Your task to perform on an android device: Open location settings Image 0: 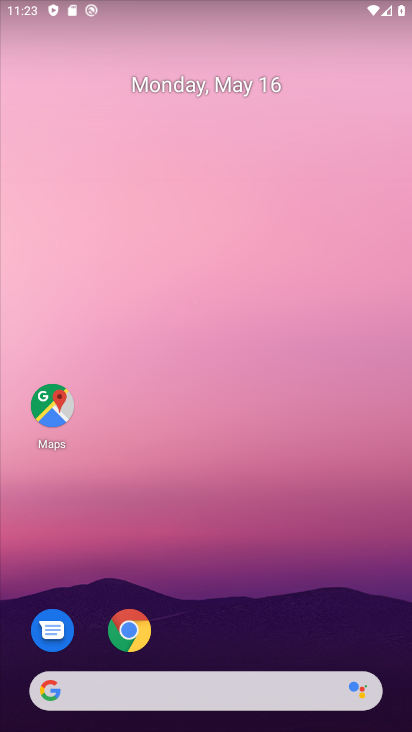
Step 0: drag from (225, 678) to (340, 141)
Your task to perform on an android device: Open location settings Image 1: 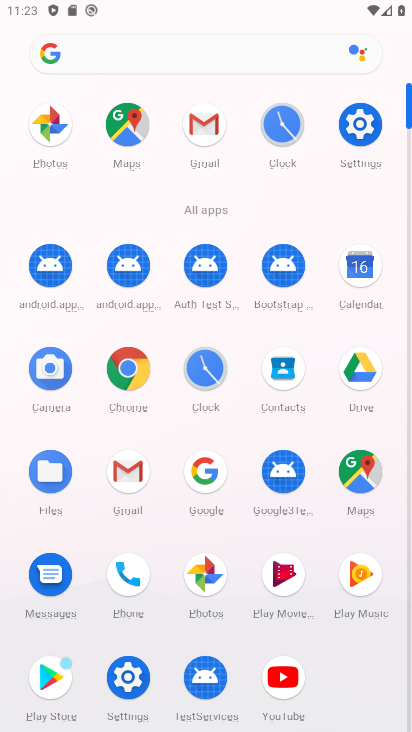
Step 1: click (122, 688)
Your task to perform on an android device: Open location settings Image 2: 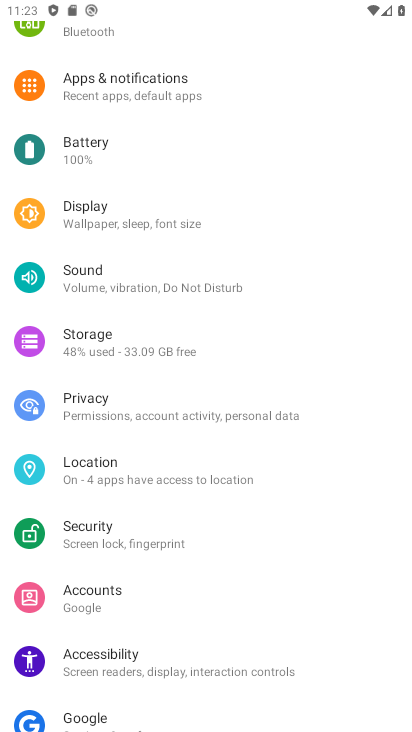
Step 2: click (163, 475)
Your task to perform on an android device: Open location settings Image 3: 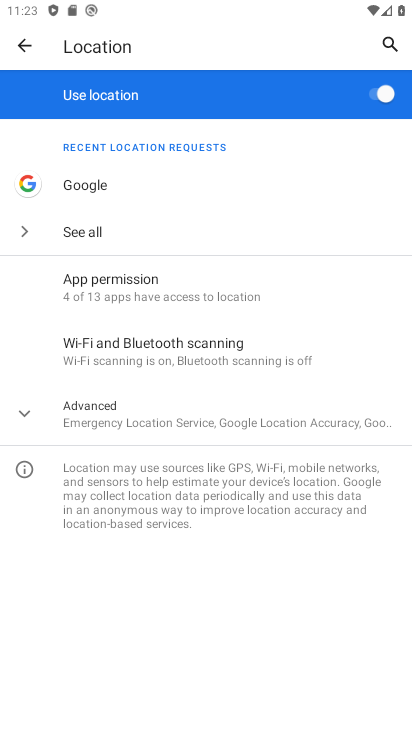
Step 3: task complete